Your task to perform on an android device: clear history in the chrome app Image 0: 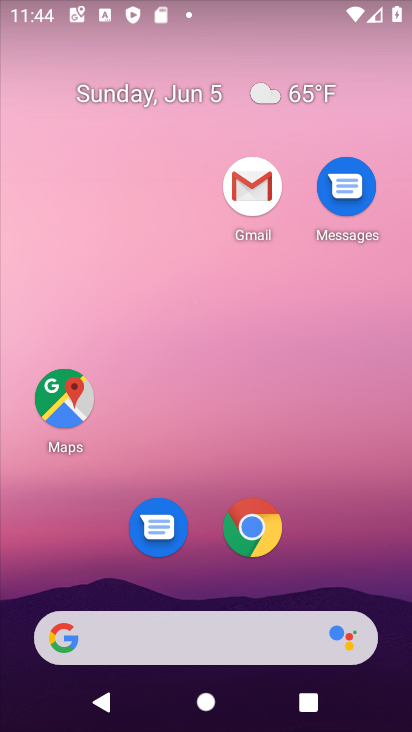
Step 0: click (247, 512)
Your task to perform on an android device: clear history in the chrome app Image 1: 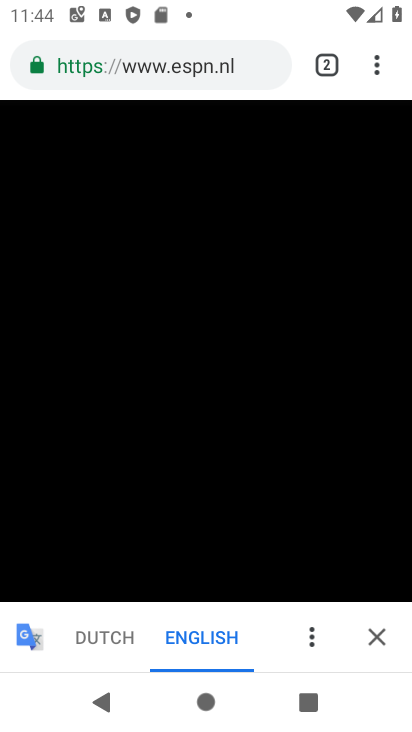
Step 1: click (376, 51)
Your task to perform on an android device: clear history in the chrome app Image 2: 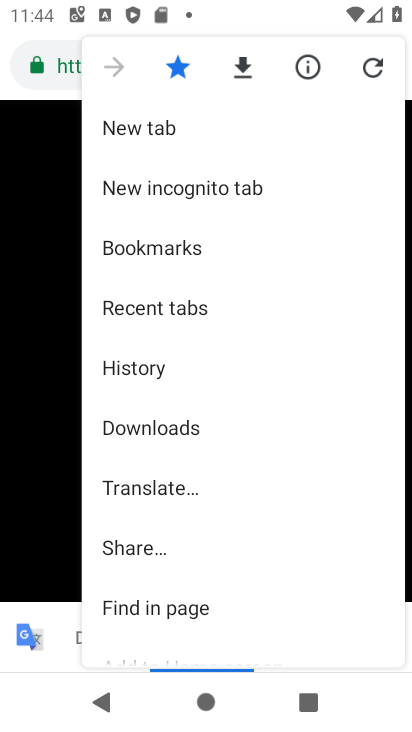
Step 2: drag from (228, 534) to (328, 224)
Your task to perform on an android device: clear history in the chrome app Image 3: 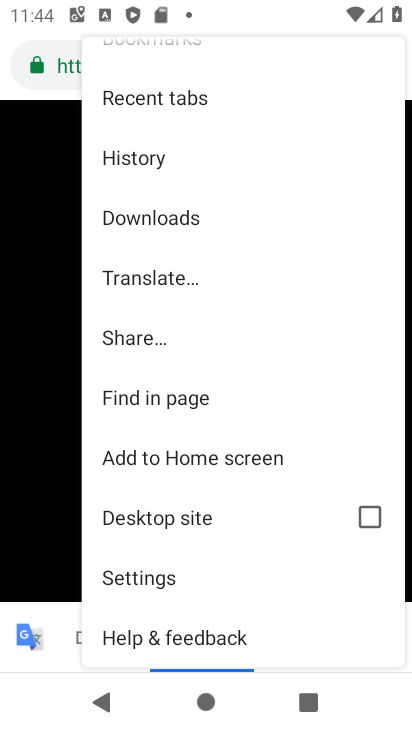
Step 3: click (171, 581)
Your task to perform on an android device: clear history in the chrome app Image 4: 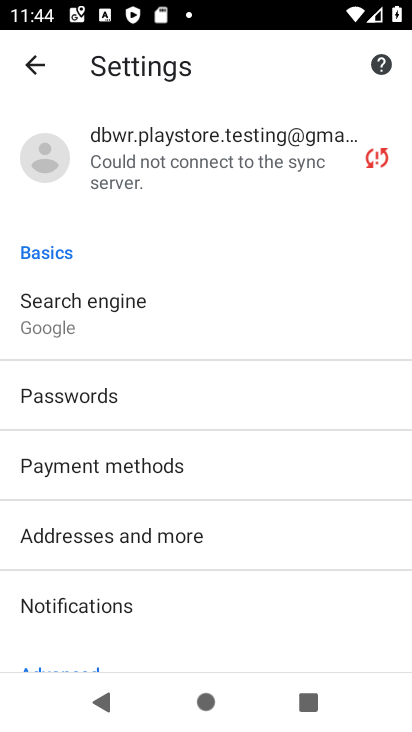
Step 4: drag from (256, 491) to (297, 171)
Your task to perform on an android device: clear history in the chrome app Image 5: 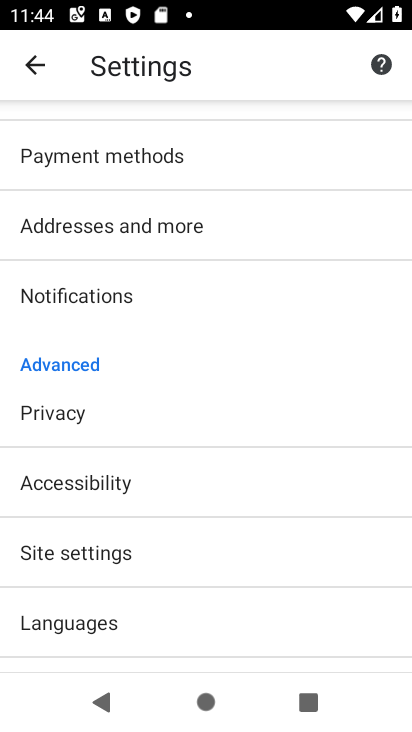
Step 5: drag from (192, 476) to (237, 207)
Your task to perform on an android device: clear history in the chrome app Image 6: 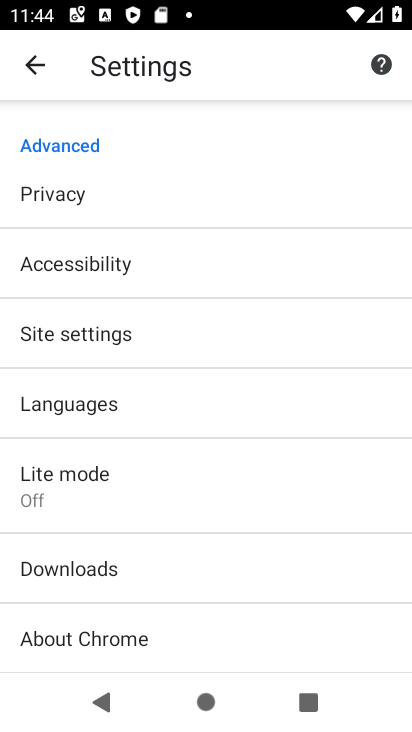
Step 6: click (152, 181)
Your task to perform on an android device: clear history in the chrome app Image 7: 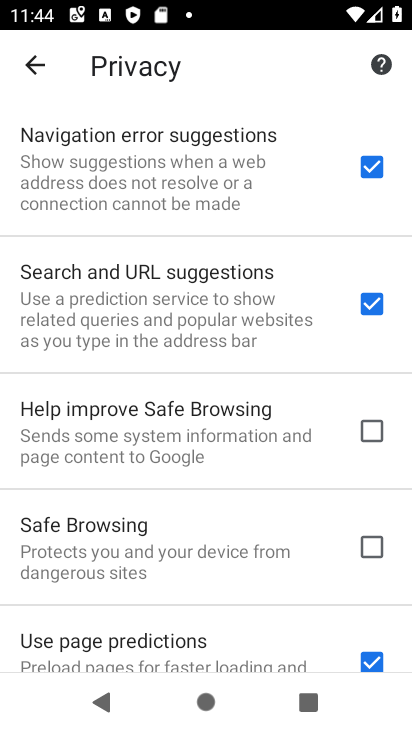
Step 7: drag from (138, 545) to (228, 170)
Your task to perform on an android device: clear history in the chrome app Image 8: 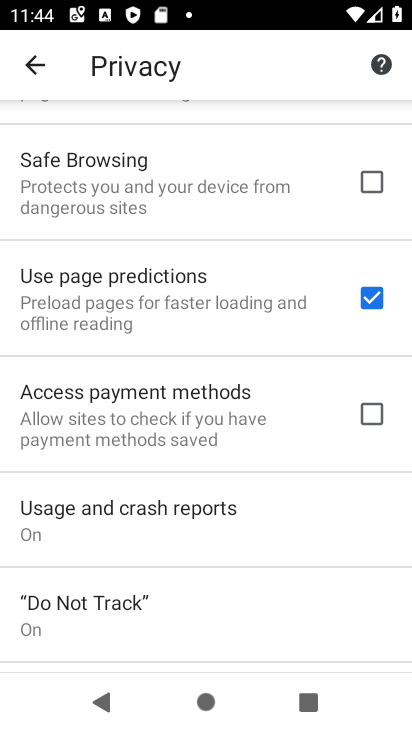
Step 8: drag from (116, 577) to (212, 135)
Your task to perform on an android device: clear history in the chrome app Image 9: 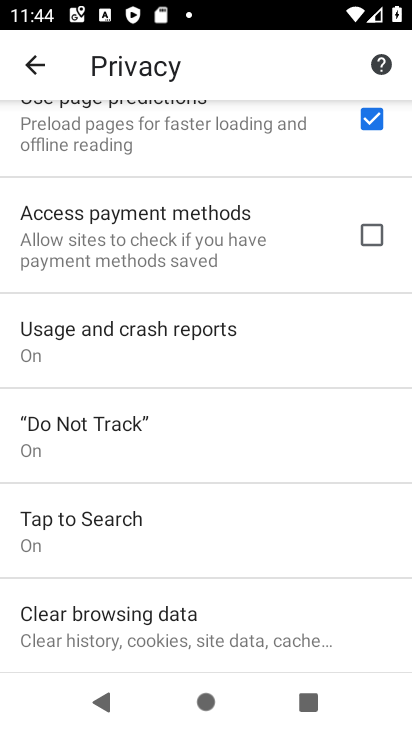
Step 9: click (130, 626)
Your task to perform on an android device: clear history in the chrome app Image 10: 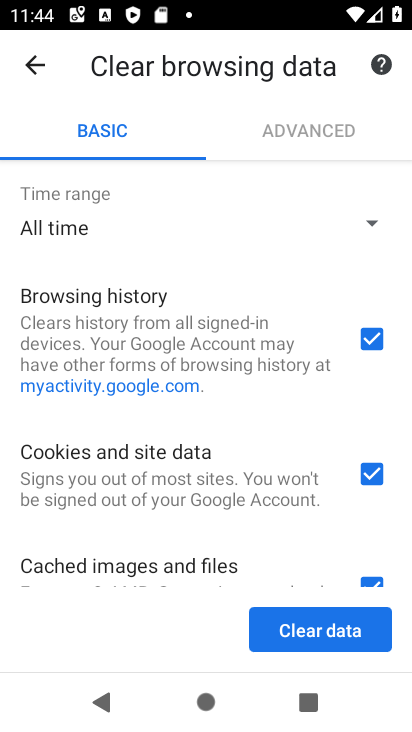
Step 10: click (368, 488)
Your task to perform on an android device: clear history in the chrome app Image 11: 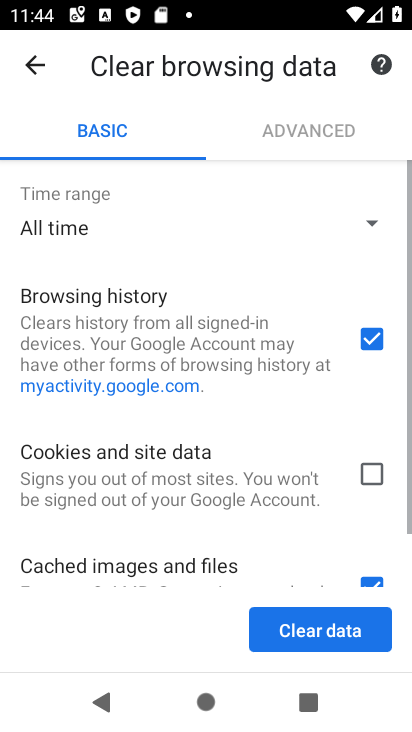
Step 11: click (362, 575)
Your task to perform on an android device: clear history in the chrome app Image 12: 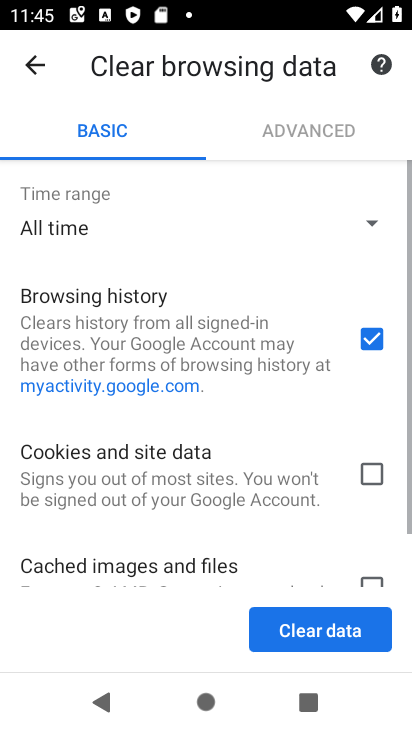
Step 12: drag from (361, 496) to (389, 179)
Your task to perform on an android device: clear history in the chrome app Image 13: 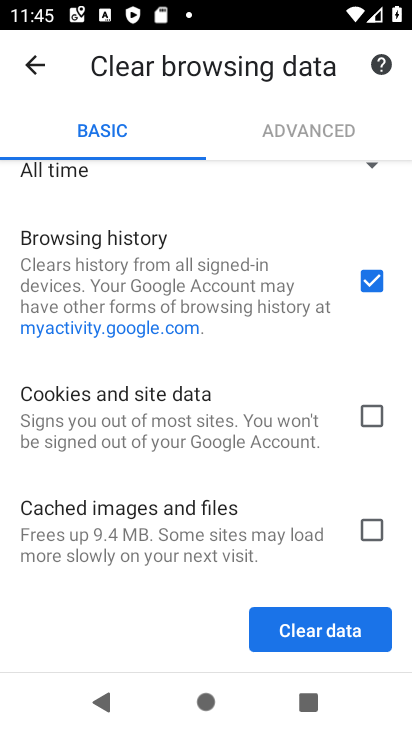
Step 13: click (298, 617)
Your task to perform on an android device: clear history in the chrome app Image 14: 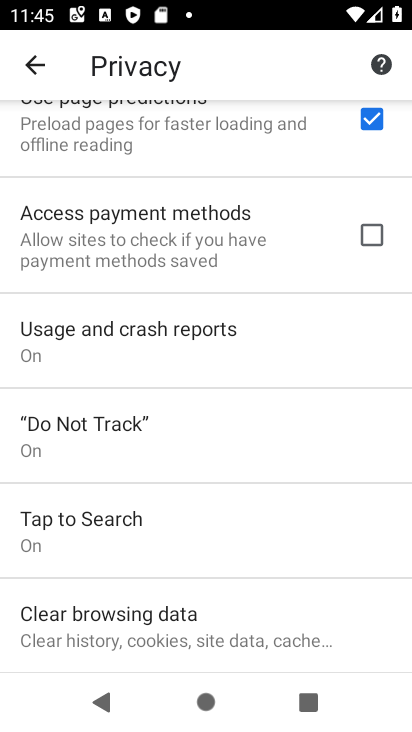
Step 14: task complete